Your task to perform on an android device: change alarm snooze length Image 0: 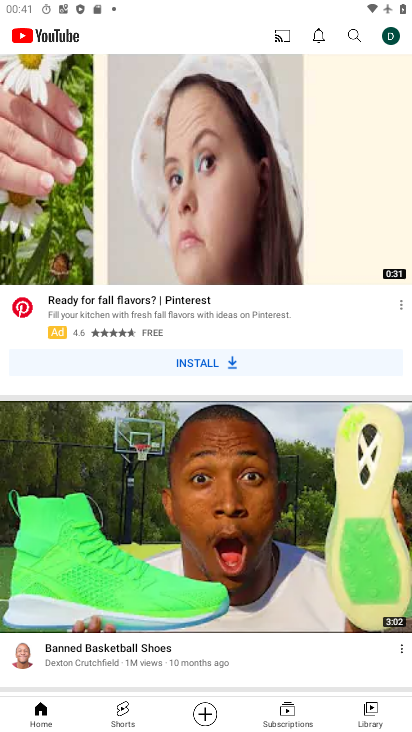
Step 0: press home button
Your task to perform on an android device: change alarm snooze length Image 1: 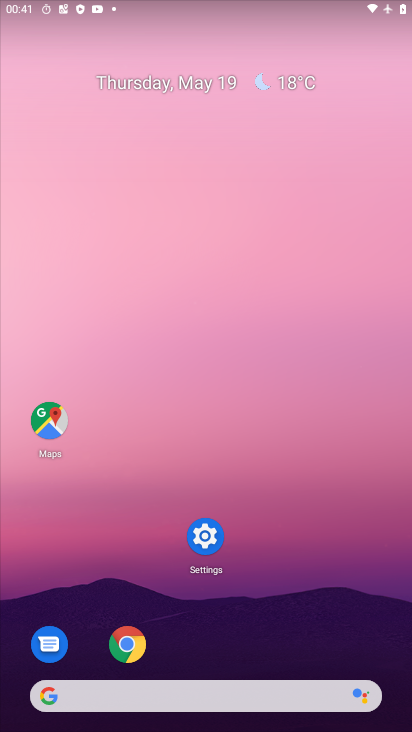
Step 1: drag from (307, 618) to (317, 190)
Your task to perform on an android device: change alarm snooze length Image 2: 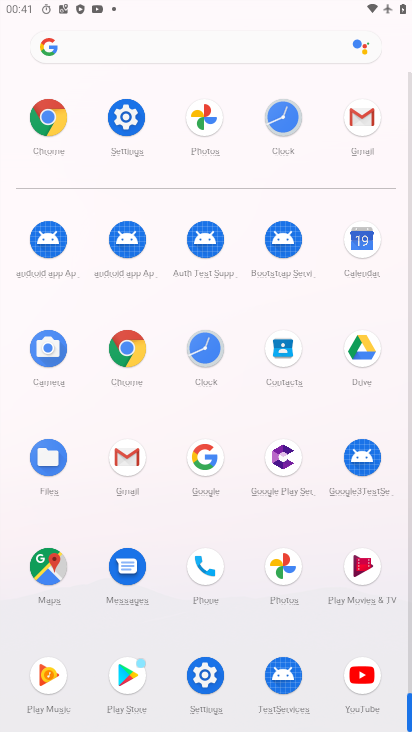
Step 2: click (276, 118)
Your task to perform on an android device: change alarm snooze length Image 3: 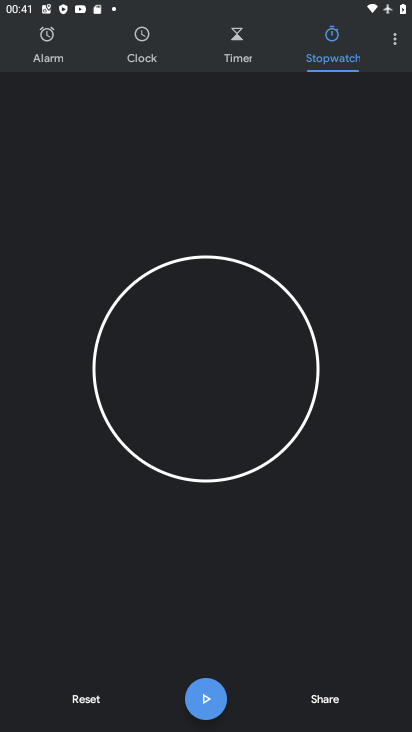
Step 3: drag from (390, 34) to (317, 81)
Your task to perform on an android device: change alarm snooze length Image 4: 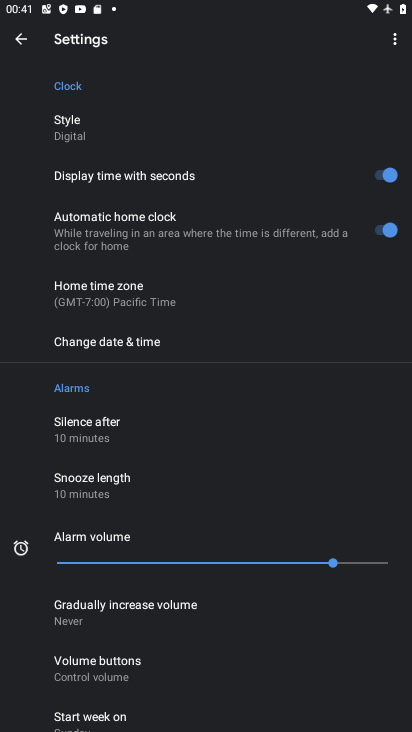
Step 4: drag from (227, 639) to (301, 218)
Your task to perform on an android device: change alarm snooze length Image 5: 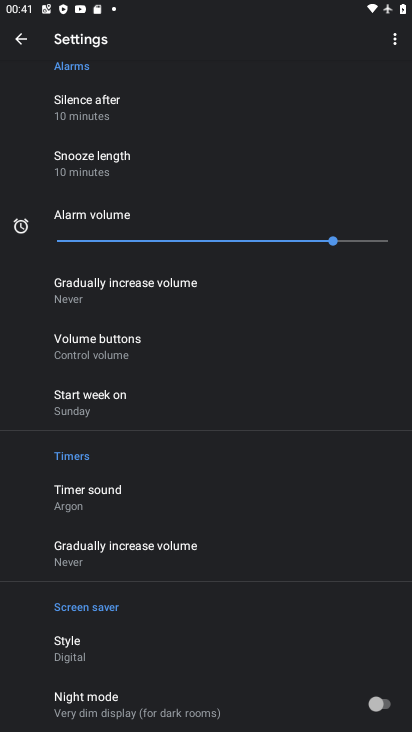
Step 5: click (112, 163)
Your task to perform on an android device: change alarm snooze length Image 6: 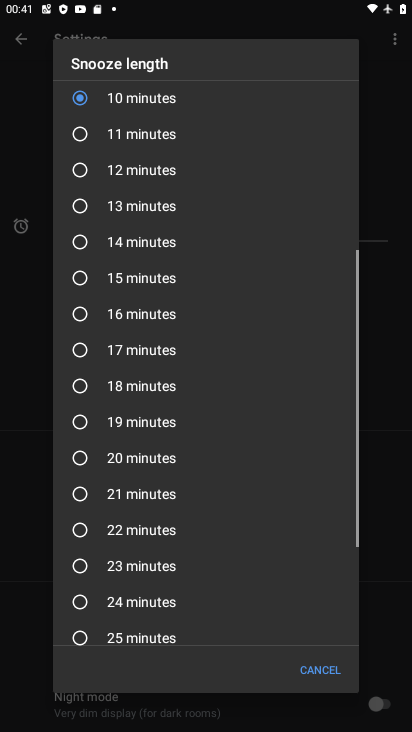
Step 6: click (143, 144)
Your task to perform on an android device: change alarm snooze length Image 7: 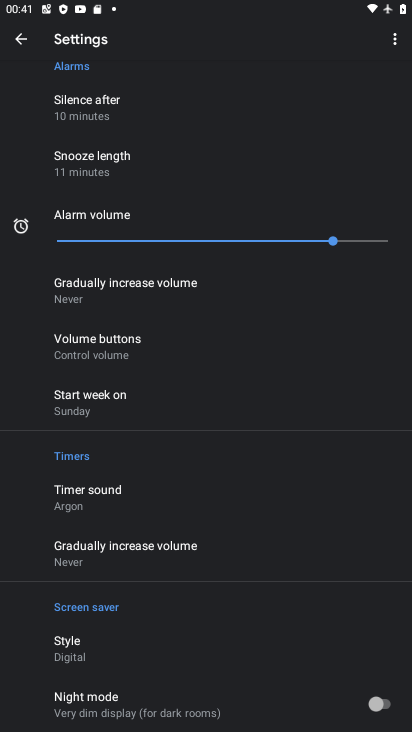
Step 7: task complete